Your task to perform on an android device: turn off sleep mode Image 0: 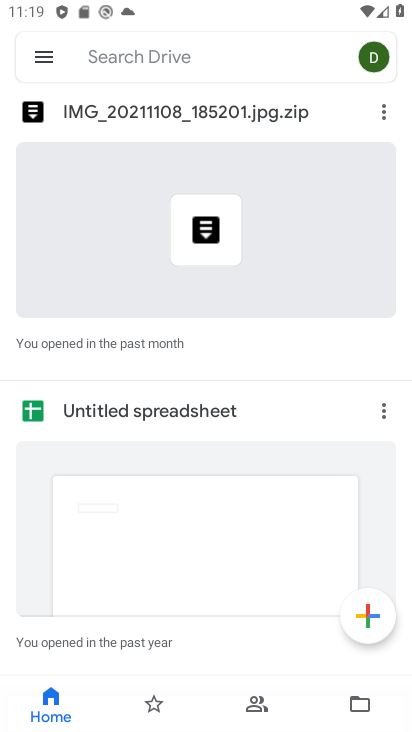
Step 0: press home button
Your task to perform on an android device: turn off sleep mode Image 1: 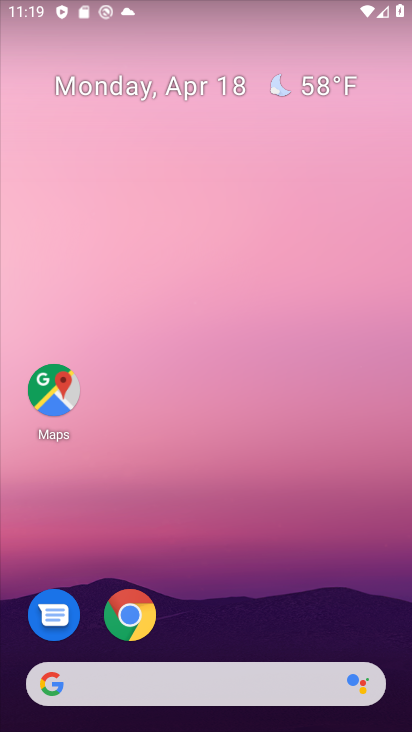
Step 1: drag from (252, 588) to (307, 143)
Your task to perform on an android device: turn off sleep mode Image 2: 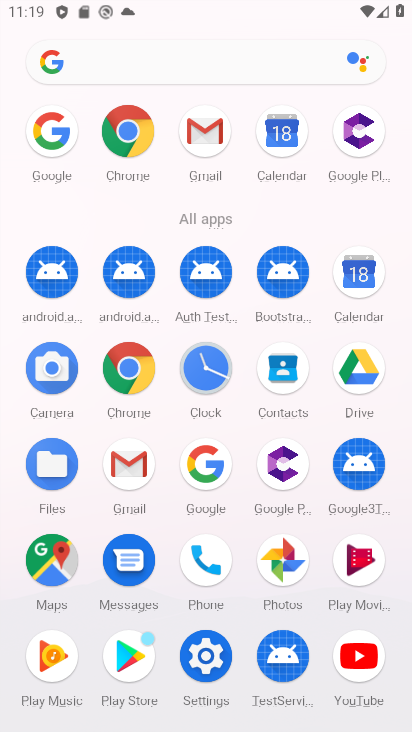
Step 2: click (202, 668)
Your task to perform on an android device: turn off sleep mode Image 3: 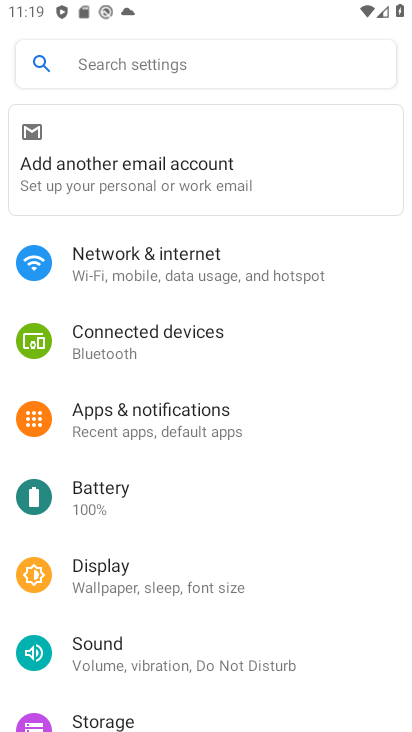
Step 3: drag from (344, 600) to (349, 283)
Your task to perform on an android device: turn off sleep mode Image 4: 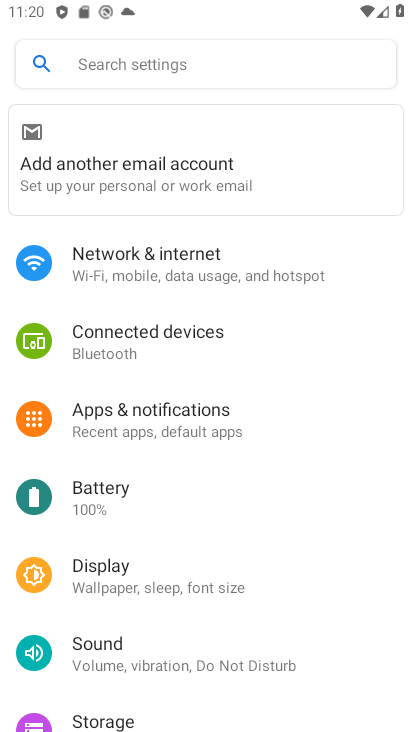
Step 4: click (145, 584)
Your task to perform on an android device: turn off sleep mode Image 5: 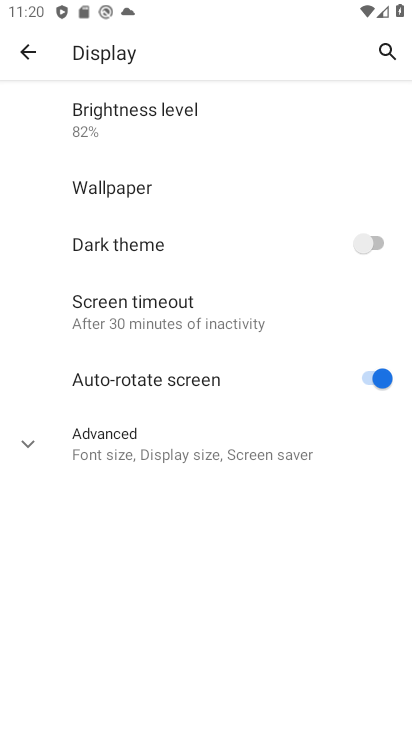
Step 5: click (204, 443)
Your task to perform on an android device: turn off sleep mode Image 6: 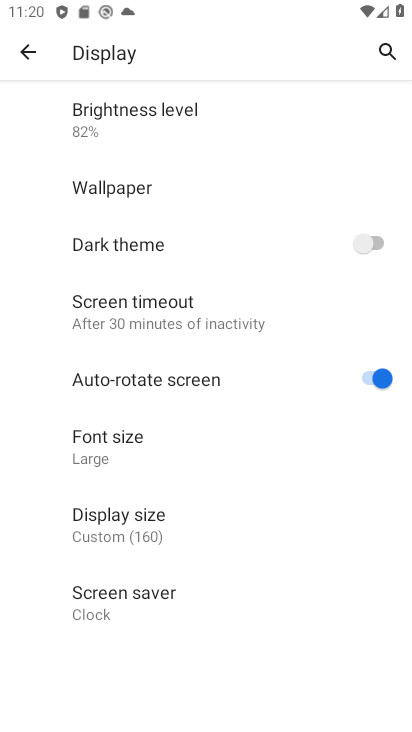
Step 6: task complete